Your task to perform on an android device: Open Chrome and go to the settings page Image 0: 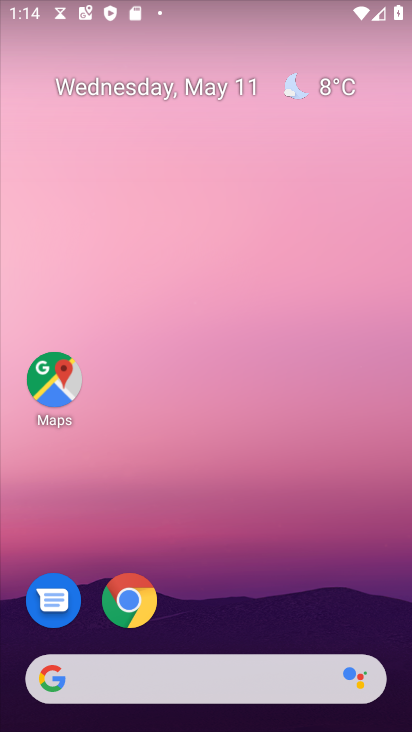
Step 0: click (139, 602)
Your task to perform on an android device: Open Chrome and go to the settings page Image 1: 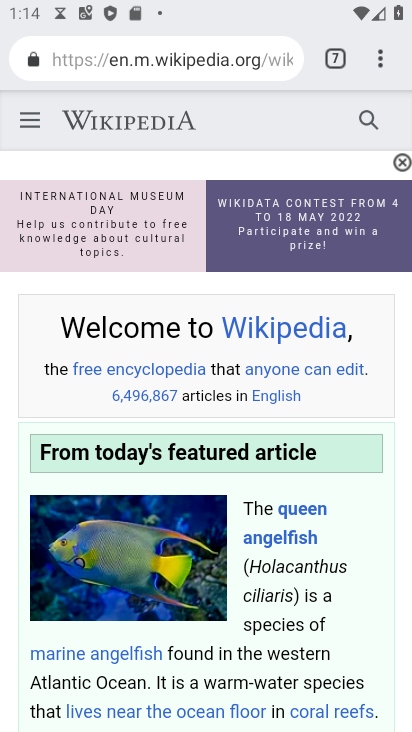
Step 1: click (373, 58)
Your task to perform on an android device: Open Chrome and go to the settings page Image 2: 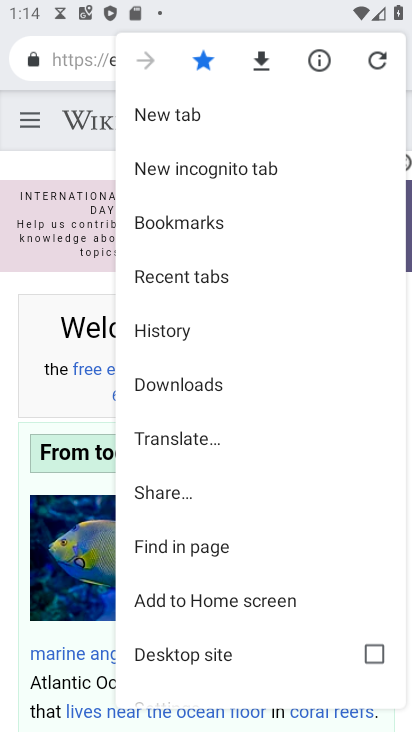
Step 2: drag from (254, 628) to (281, 327)
Your task to perform on an android device: Open Chrome and go to the settings page Image 3: 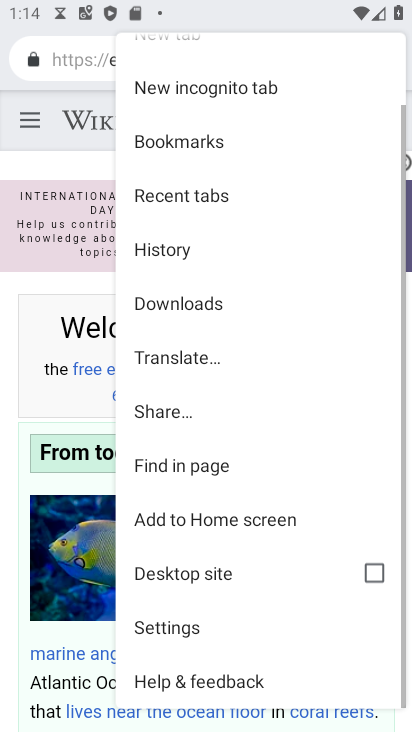
Step 3: click (192, 634)
Your task to perform on an android device: Open Chrome and go to the settings page Image 4: 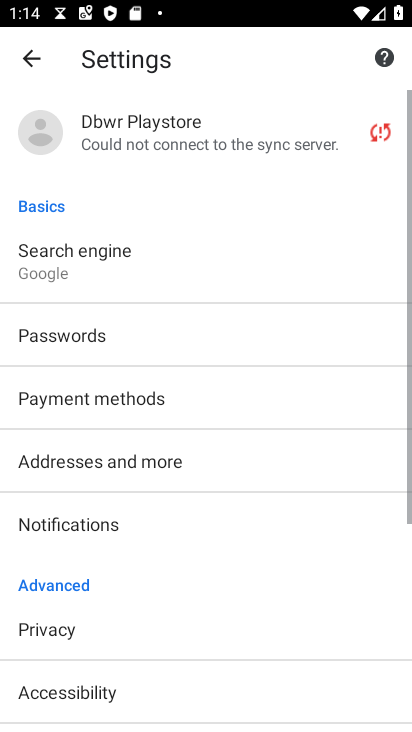
Step 4: task complete